Your task to perform on an android device: Add "usb-a" to the cart on bestbuy.com Image 0: 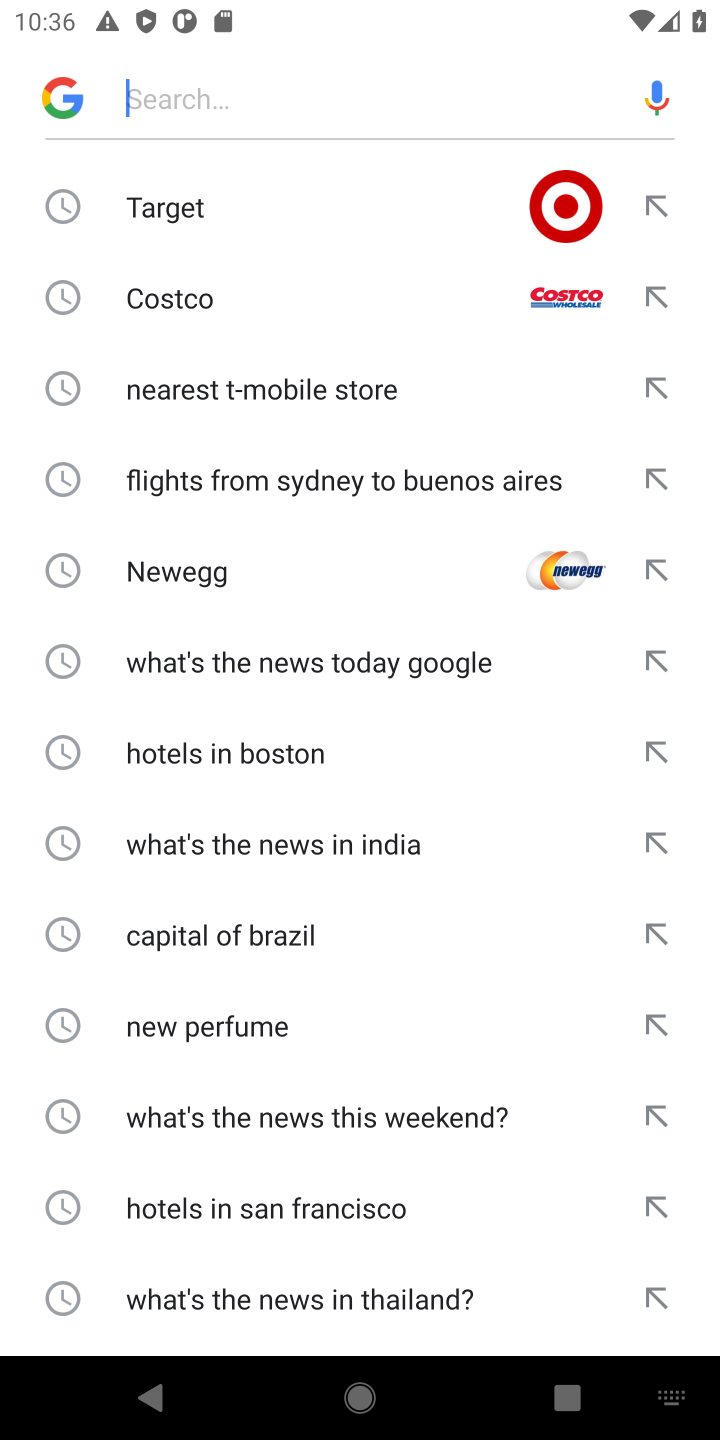
Step 0: press home button
Your task to perform on an android device: Add "usb-a" to the cart on bestbuy.com Image 1: 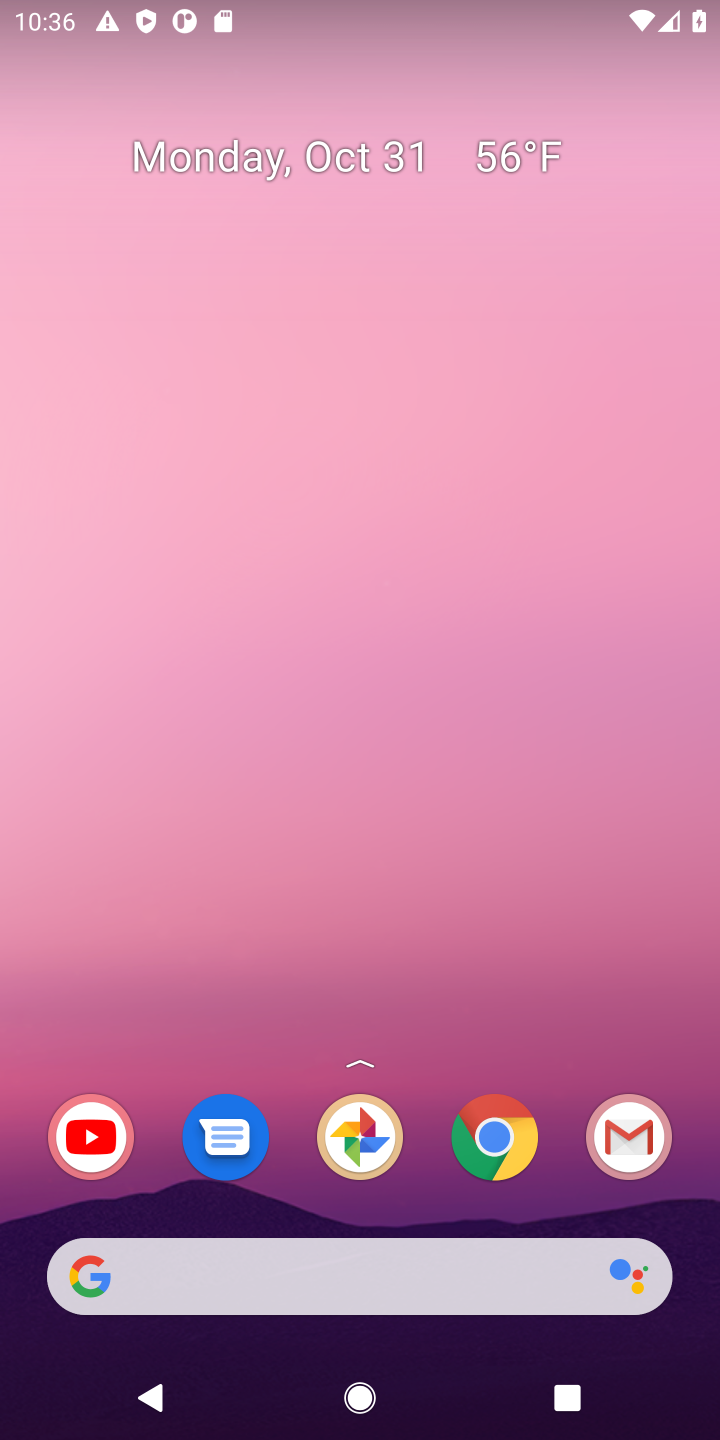
Step 1: click (495, 1137)
Your task to perform on an android device: Add "usb-a" to the cart on bestbuy.com Image 2: 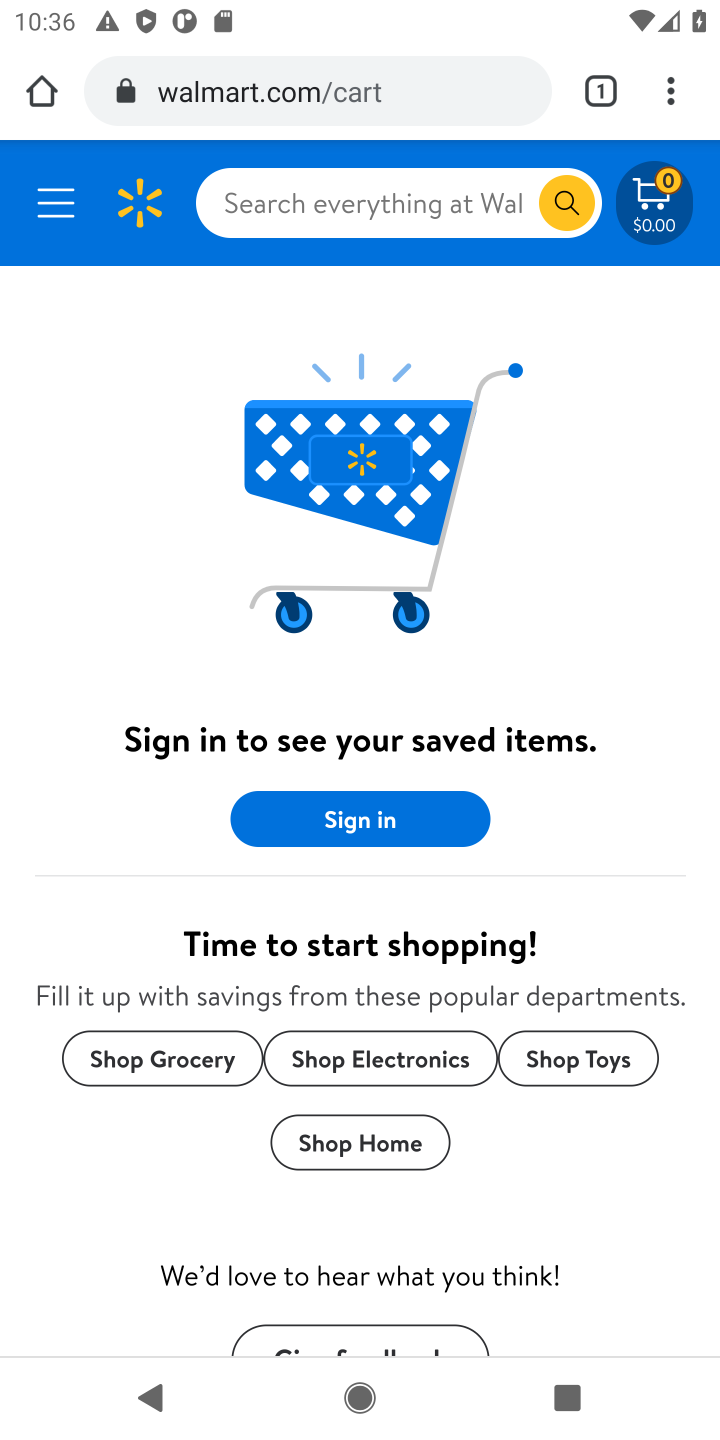
Step 2: click (400, 89)
Your task to perform on an android device: Add "usb-a" to the cart on bestbuy.com Image 3: 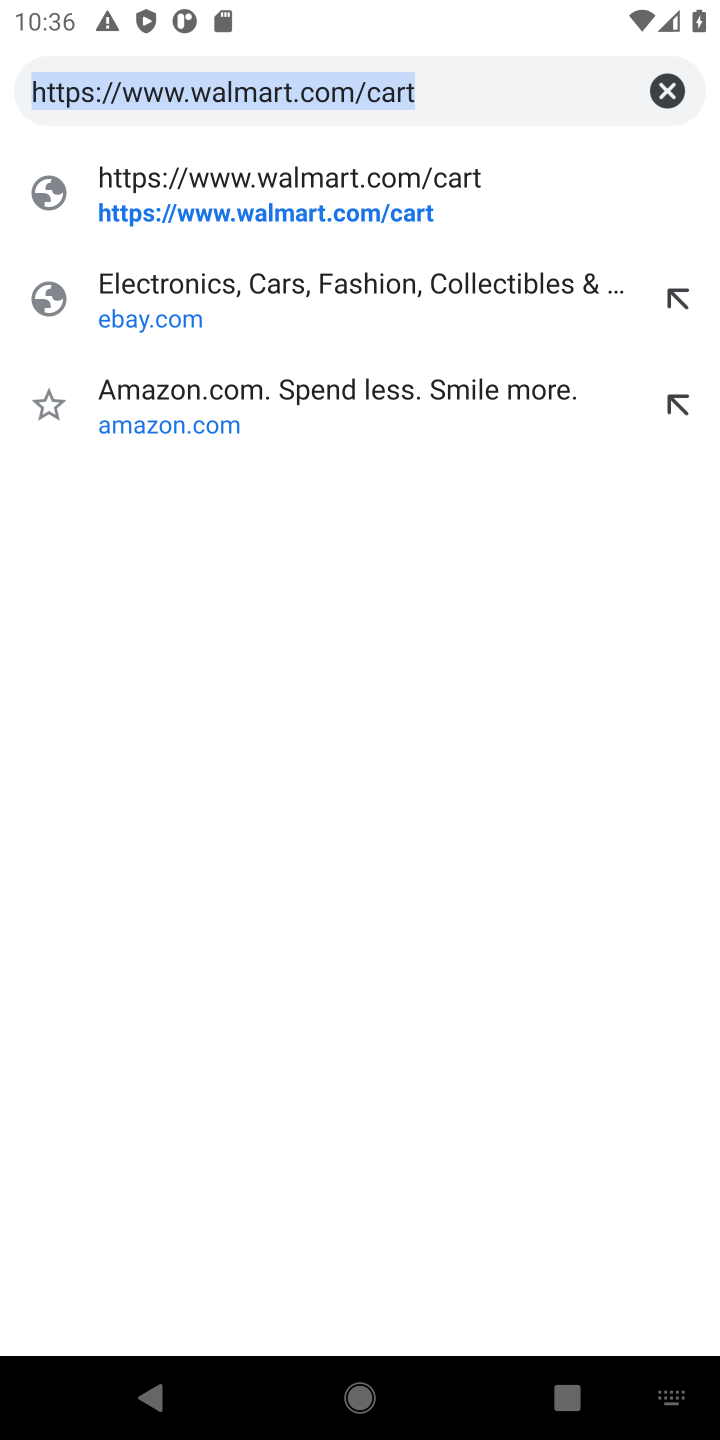
Step 3: click (674, 82)
Your task to perform on an android device: Add "usb-a" to the cart on bestbuy.com Image 4: 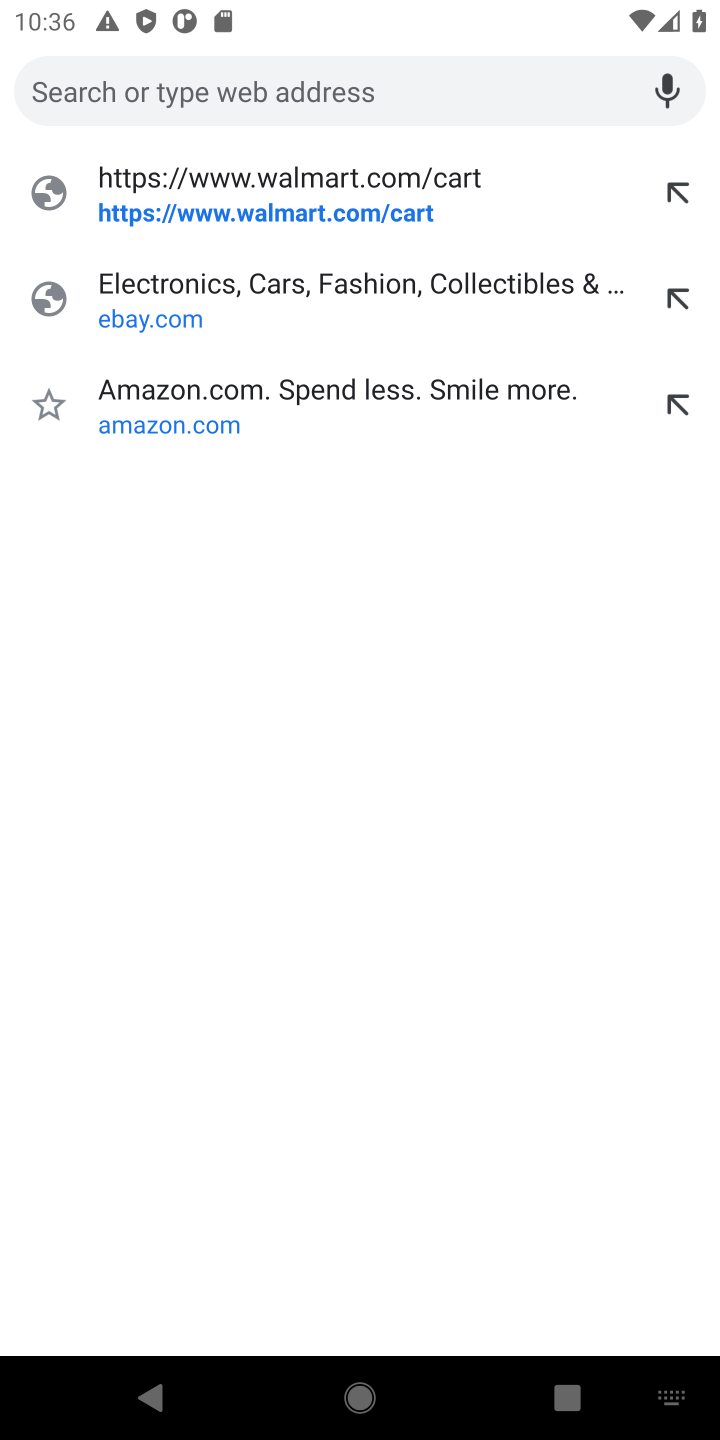
Step 4: type "bestbuy.com"
Your task to perform on an android device: Add "usb-a" to the cart on bestbuy.com Image 5: 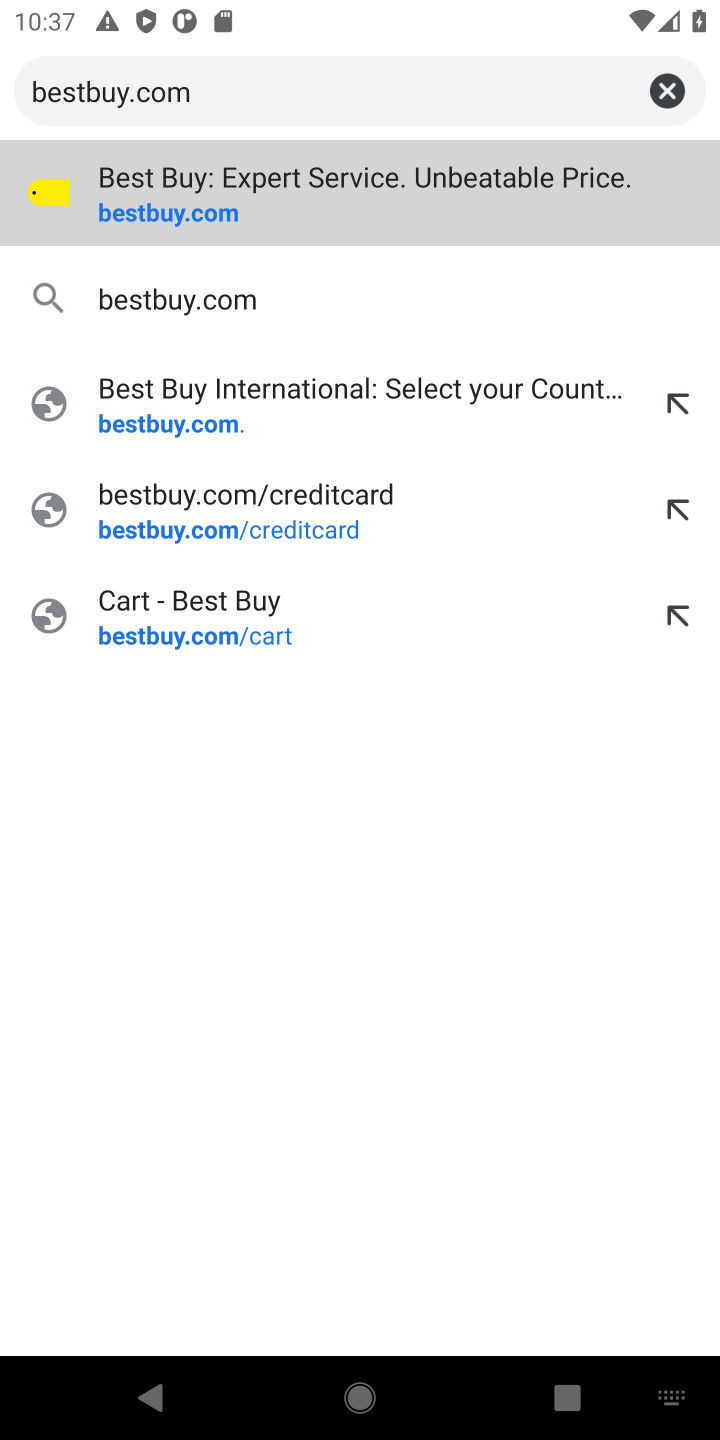
Step 5: click (185, 301)
Your task to perform on an android device: Add "usb-a" to the cart on bestbuy.com Image 6: 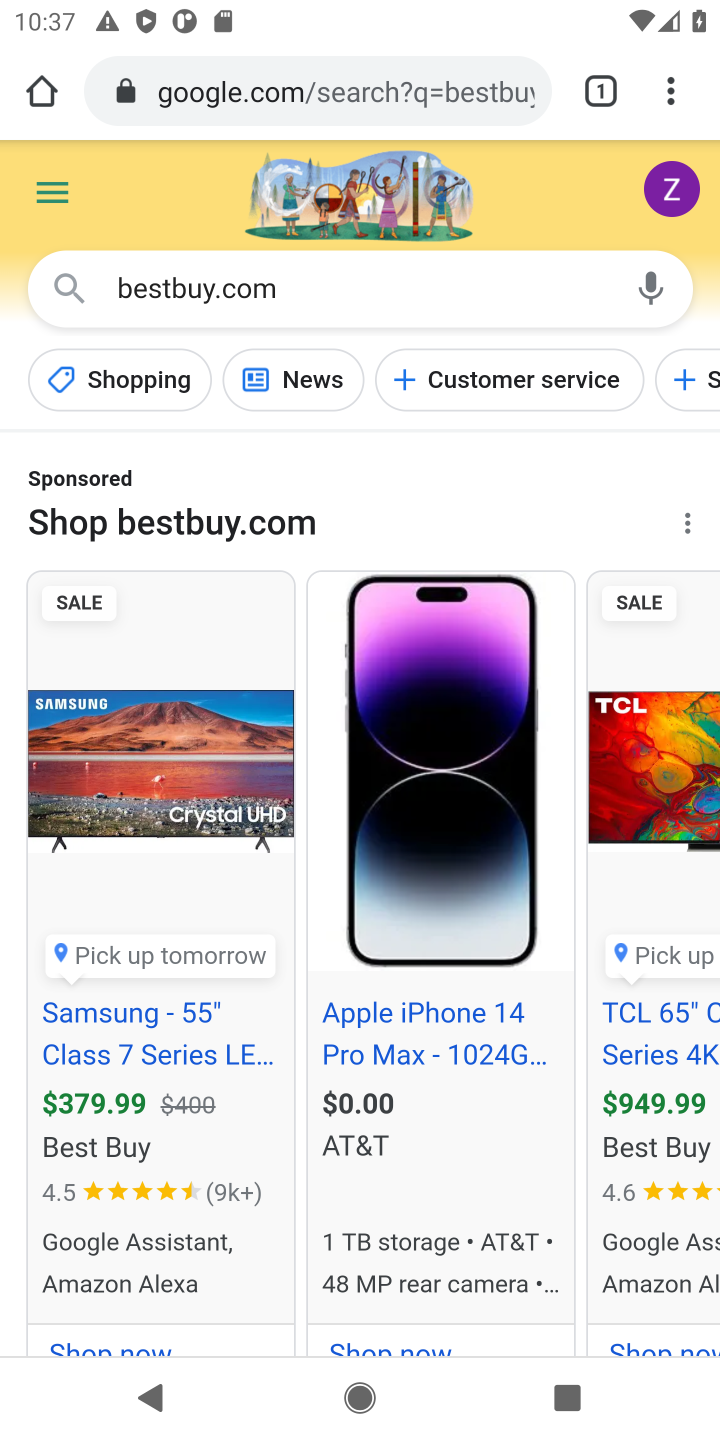
Step 6: drag from (456, 1092) to (547, 384)
Your task to perform on an android device: Add "usb-a" to the cart on bestbuy.com Image 7: 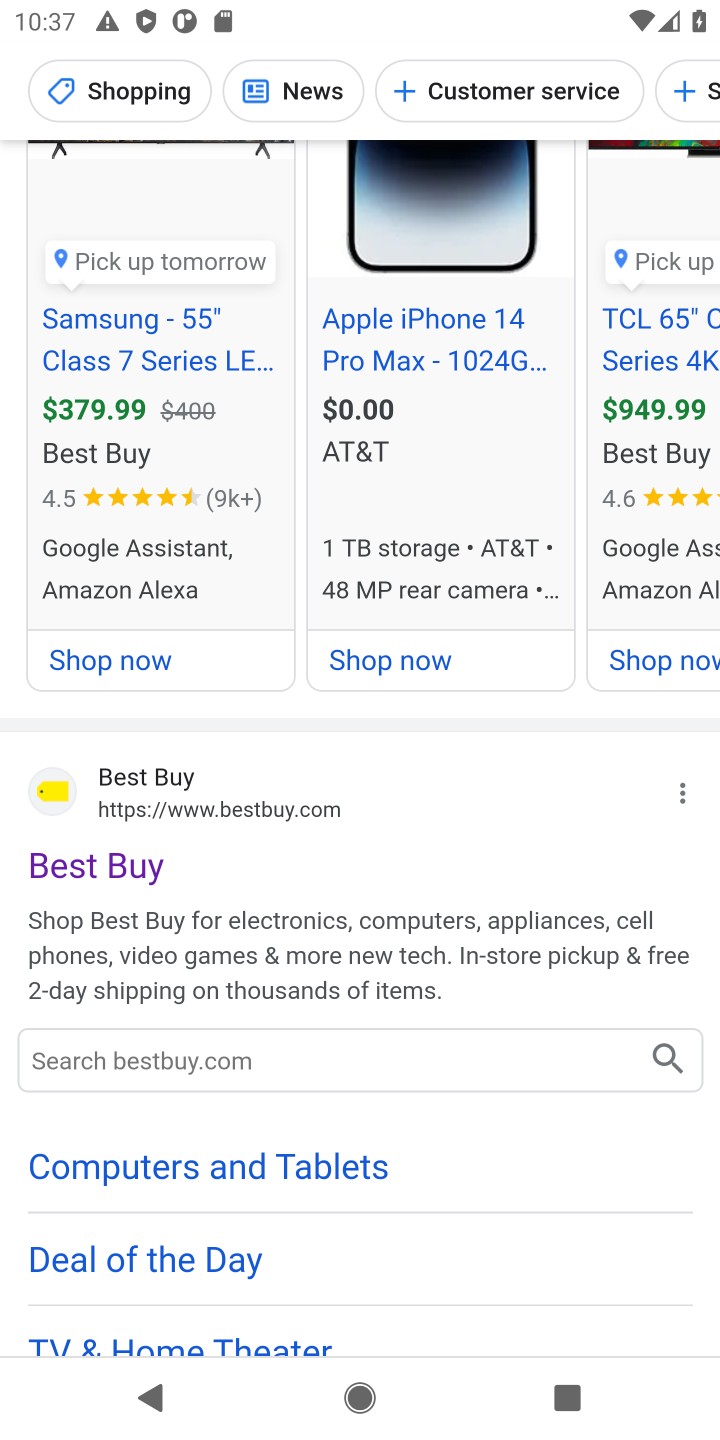
Step 7: click (139, 851)
Your task to perform on an android device: Add "usb-a" to the cart on bestbuy.com Image 8: 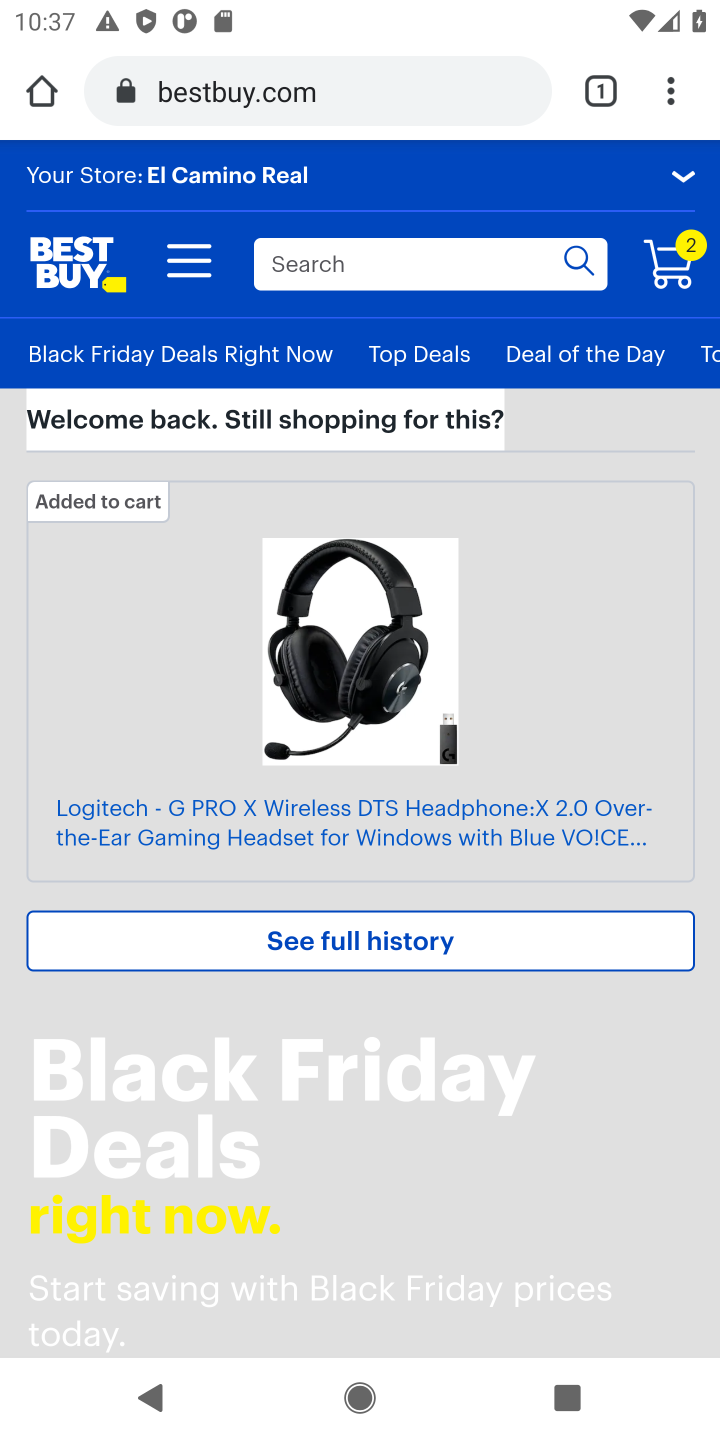
Step 8: click (427, 259)
Your task to perform on an android device: Add "usb-a" to the cart on bestbuy.com Image 9: 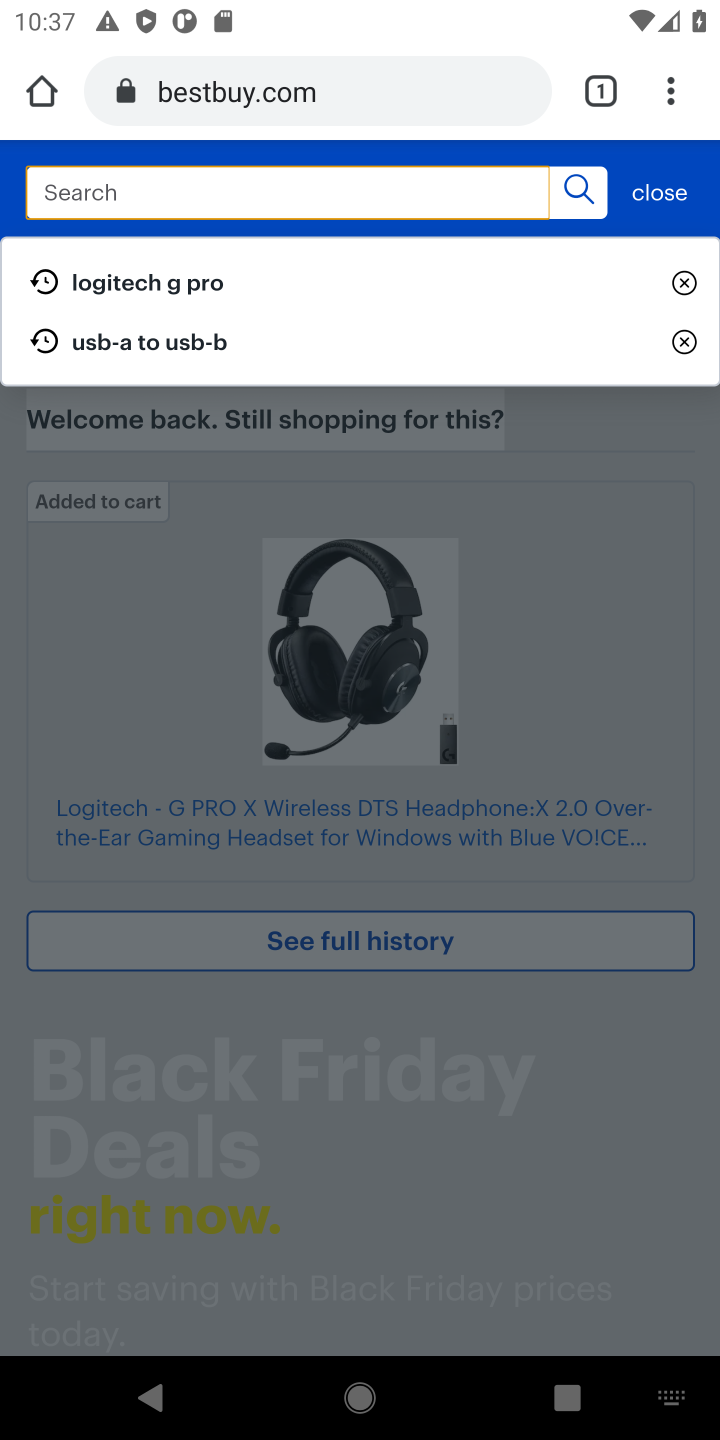
Step 9: type "usb-a"
Your task to perform on an android device: Add "usb-a" to the cart on bestbuy.com Image 10: 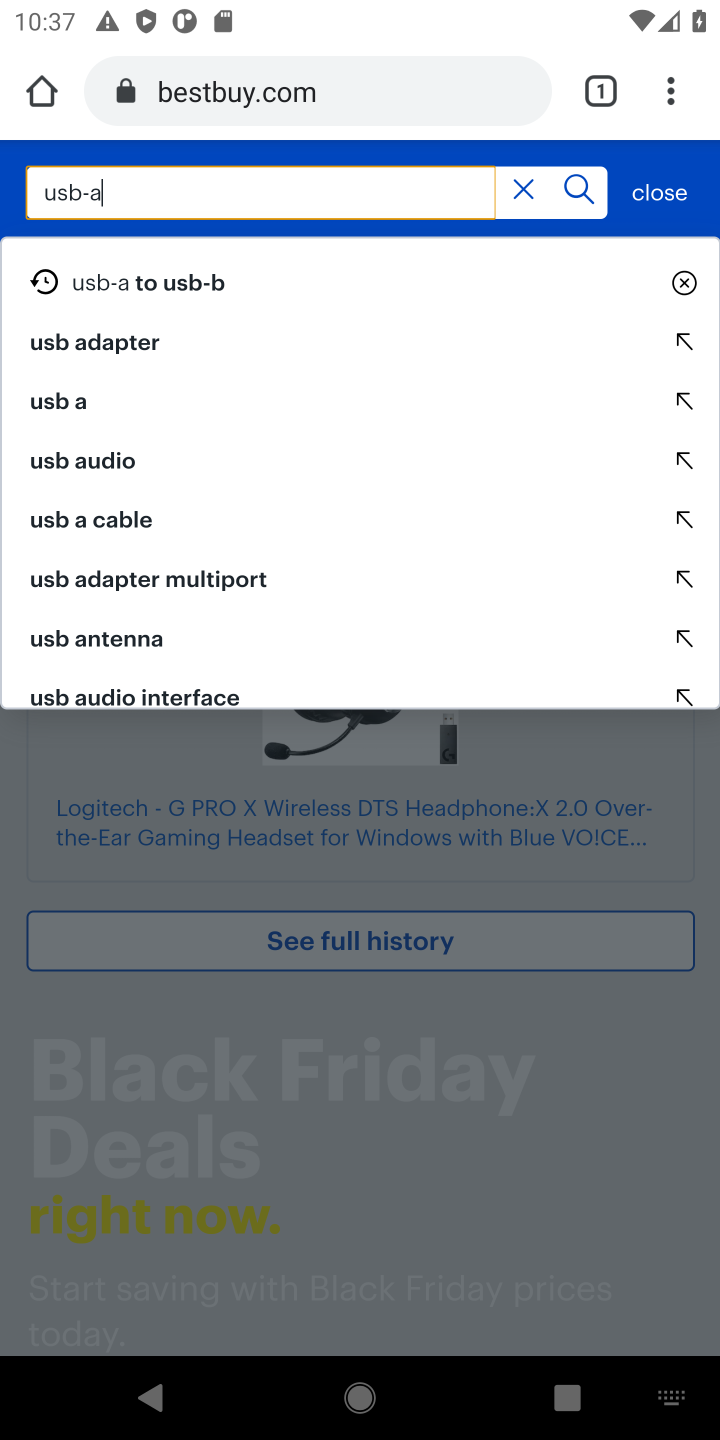
Step 10: click (32, 398)
Your task to perform on an android device: Add "usb-a" to the cart on bestbuy.com Image 11: 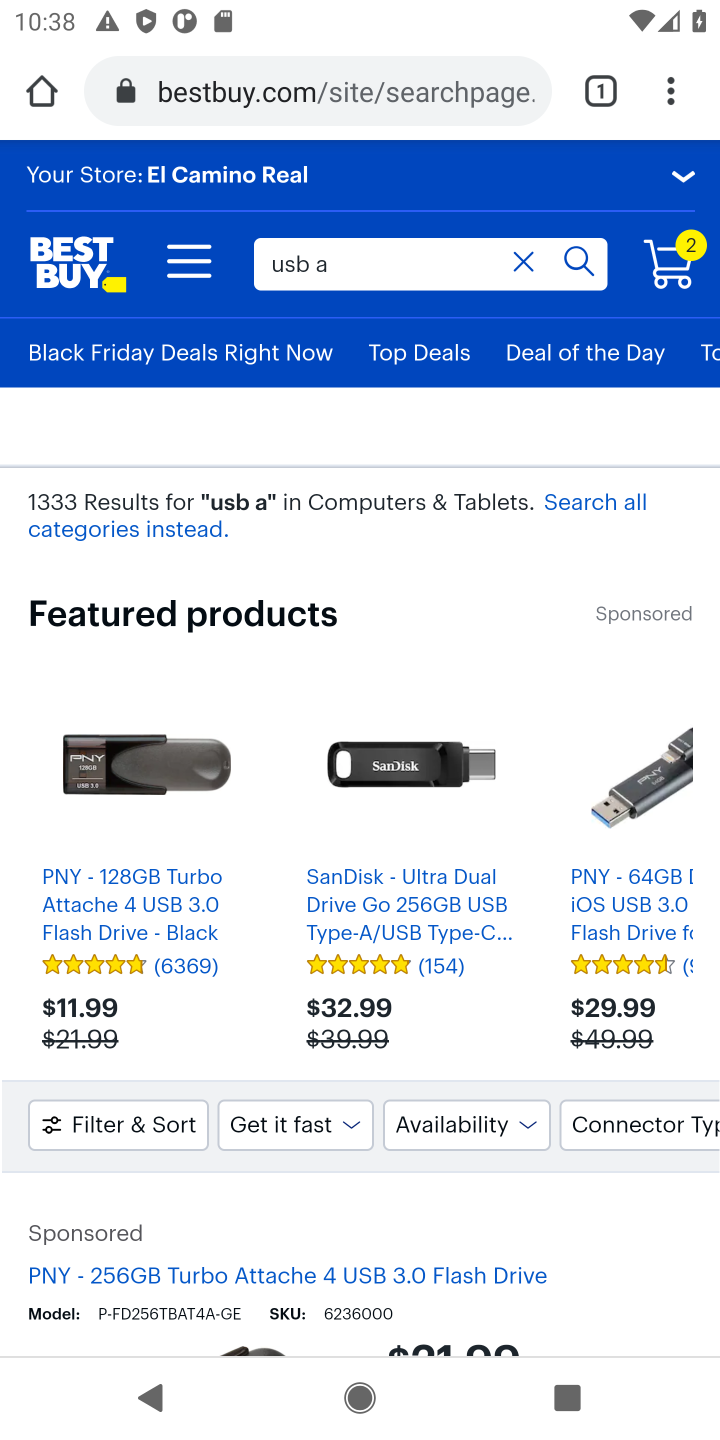
Step 11: drag from (381, 1213) to (431, 422)
Your task to perform on an android device: Add "usb-a" to the cart on bestbuy.com Image 12: 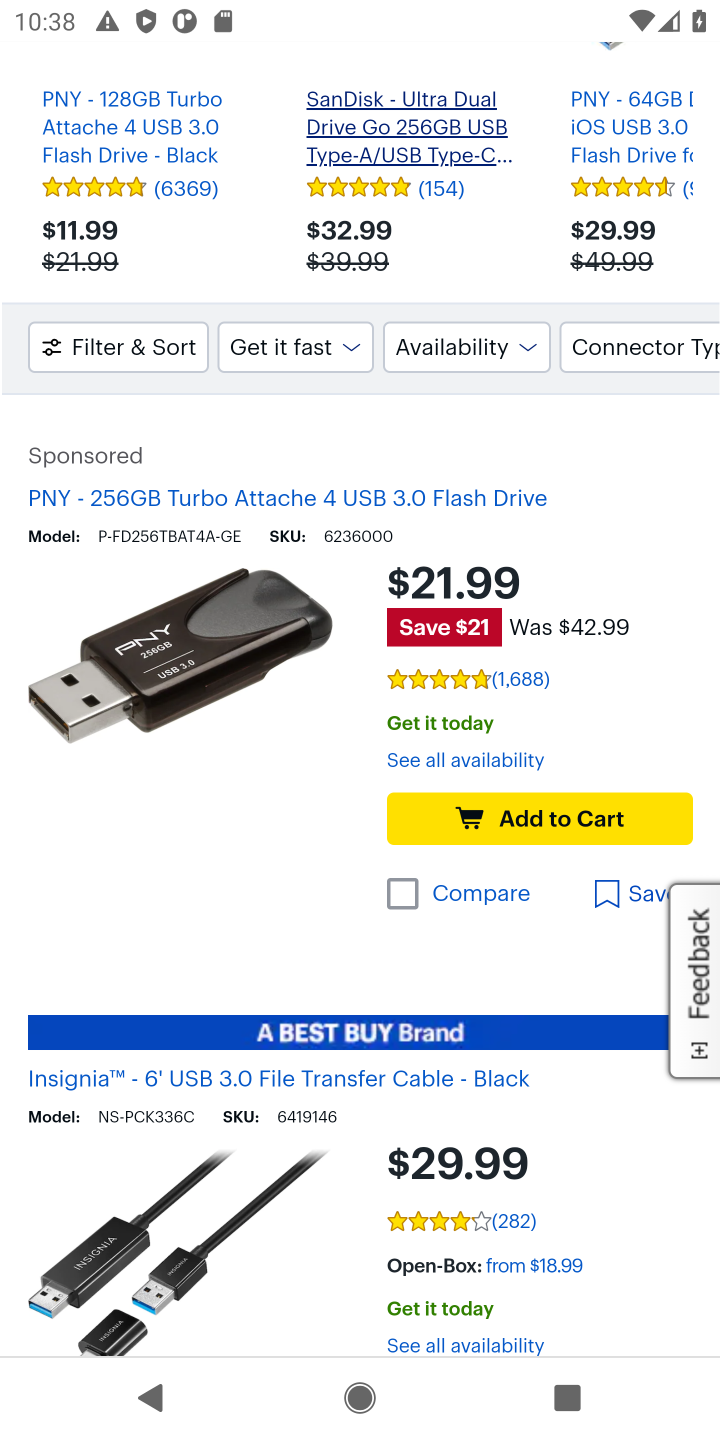
Step 12: drag from (588, 1142) to (523, 496)
Your task to perform on an android device: Add "usb-a" to the cart on bestbuy.com Image 13: 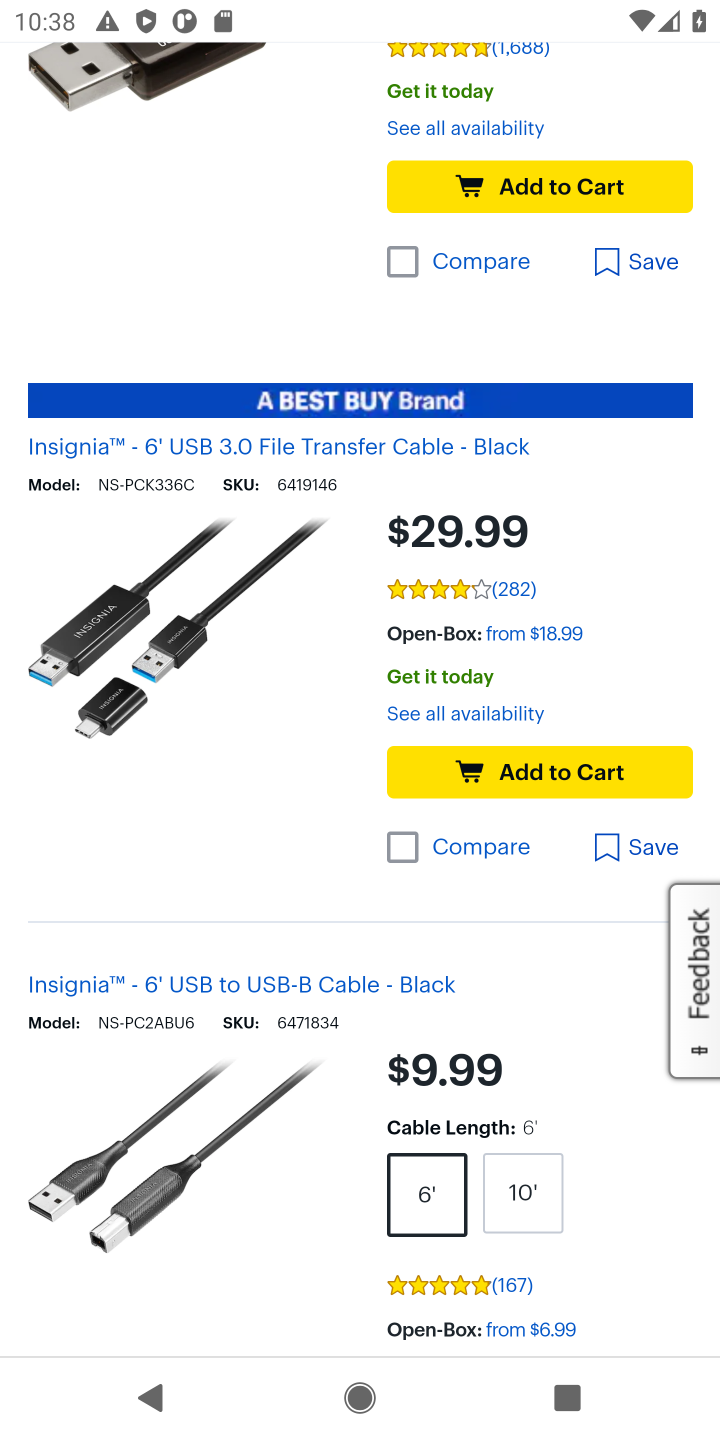
Step 13: drag from (562, 457) to (538, 1100)
Your task to perform on an android device: Add "usb-a" to the cart on bestbuy.com Image 14: 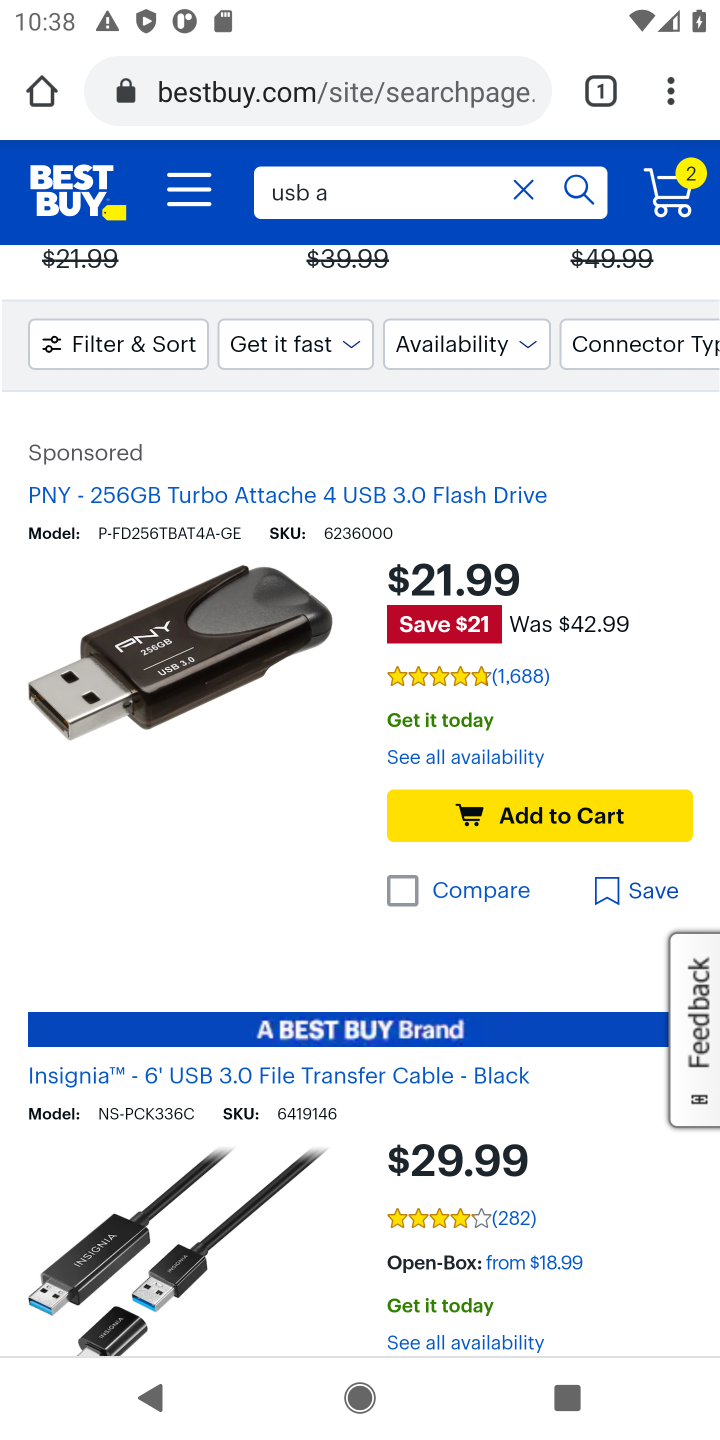
Step 14: drag from (409, 375) to (494, 1015)
Your task to perform on an android device: Add "usb-a" to the cart on bestbuy.com Image 15: 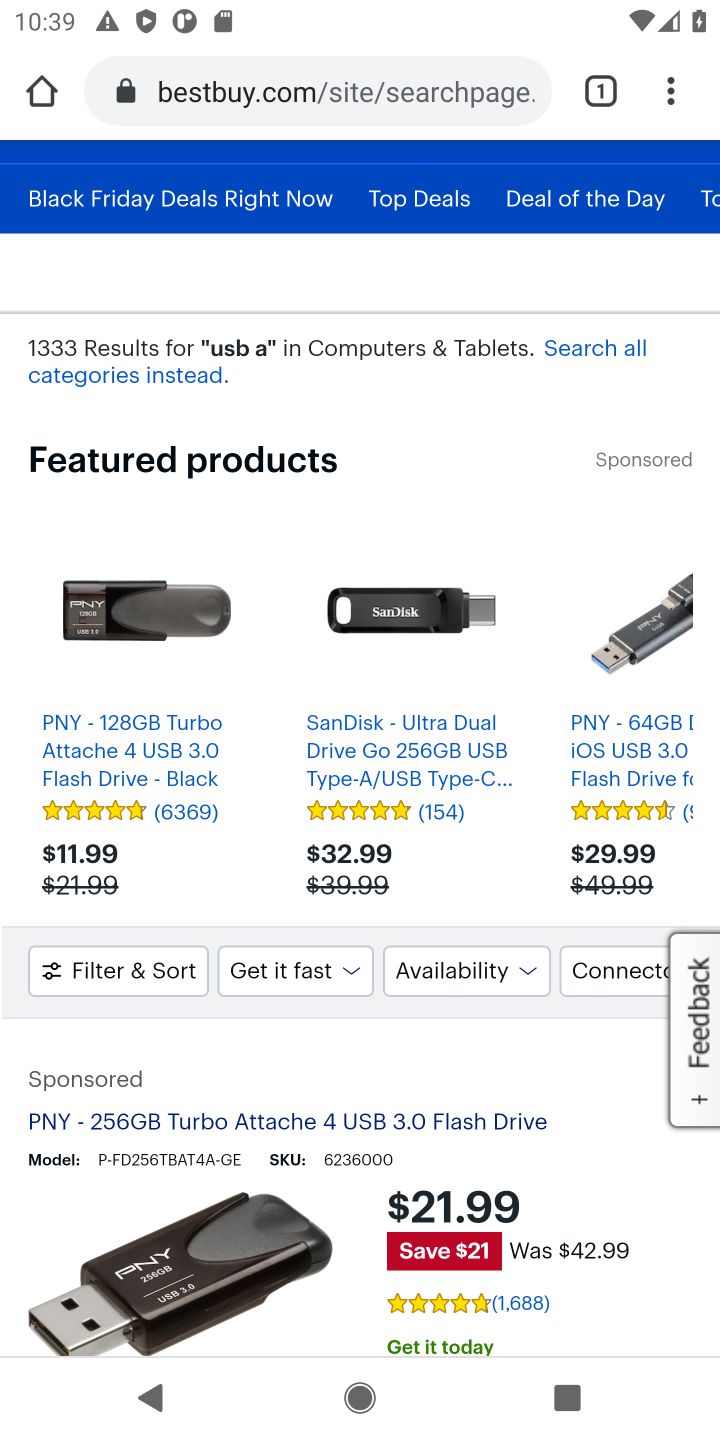
Step 15: drag from (584, 1190) to (583, 938)
Your task to perform on an android device: Add "usb-a" to the cart on bestbuy.com Image 16: 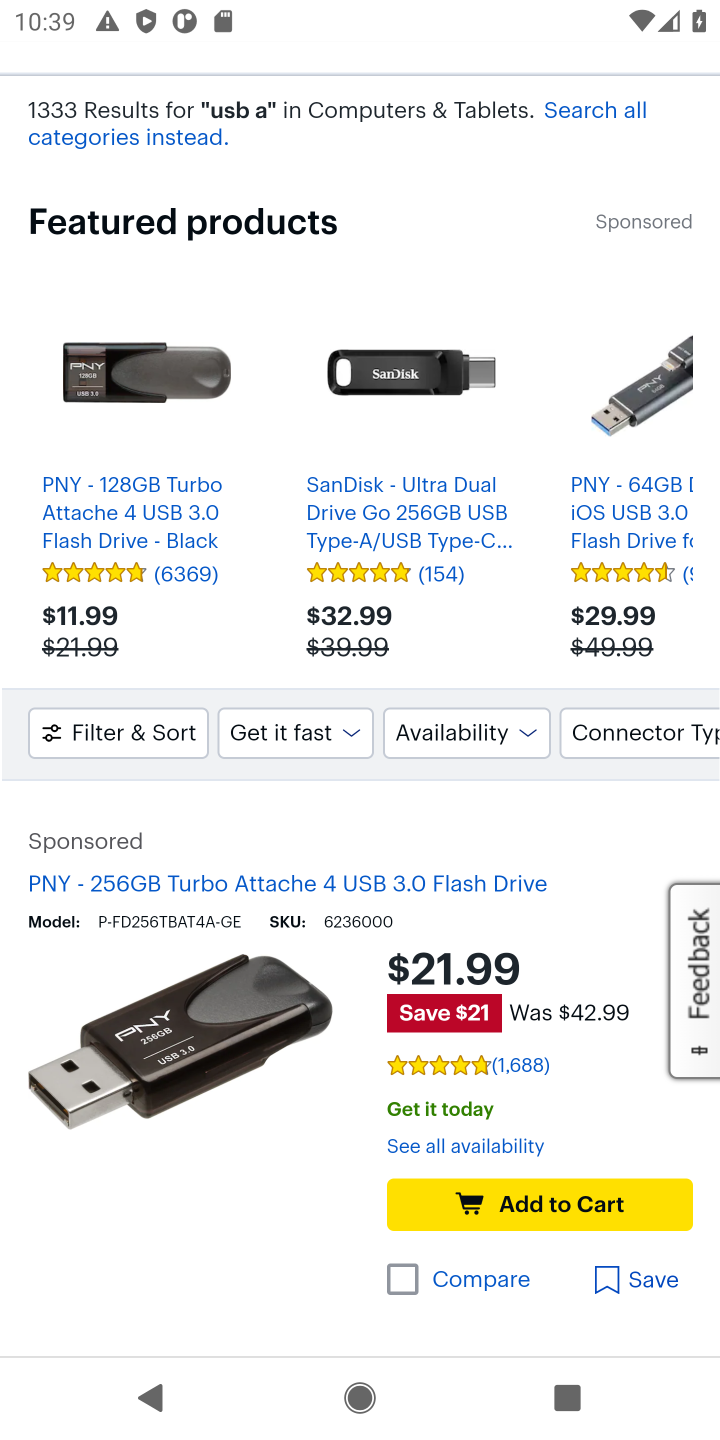
Step 16: click (499, 1200)
Your task to perform on an android device: Add "usb-a" to the cart on bestbuy.com Image 17: 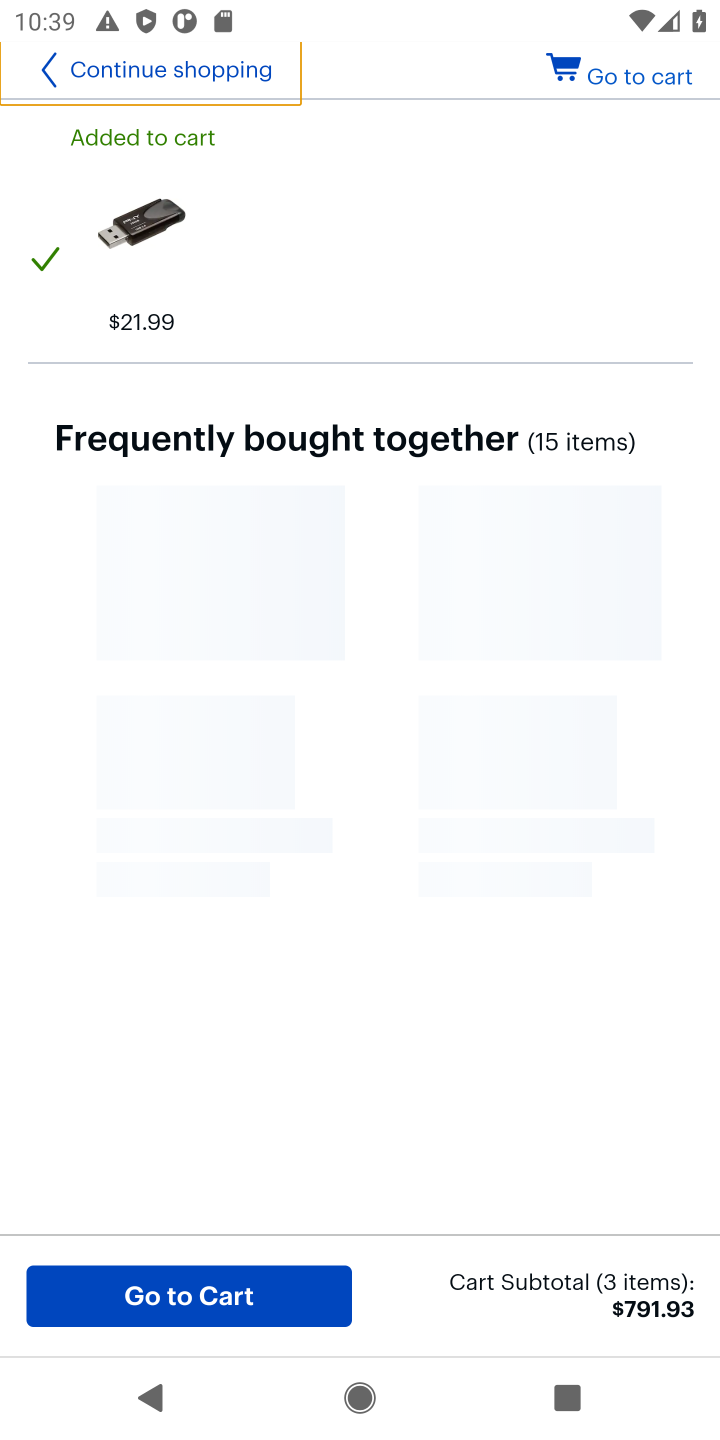
Step 17: click (177, 1299)
Your task to perform on an android device: Add "usb-a" to the cart on bestbuy.com Image 18: 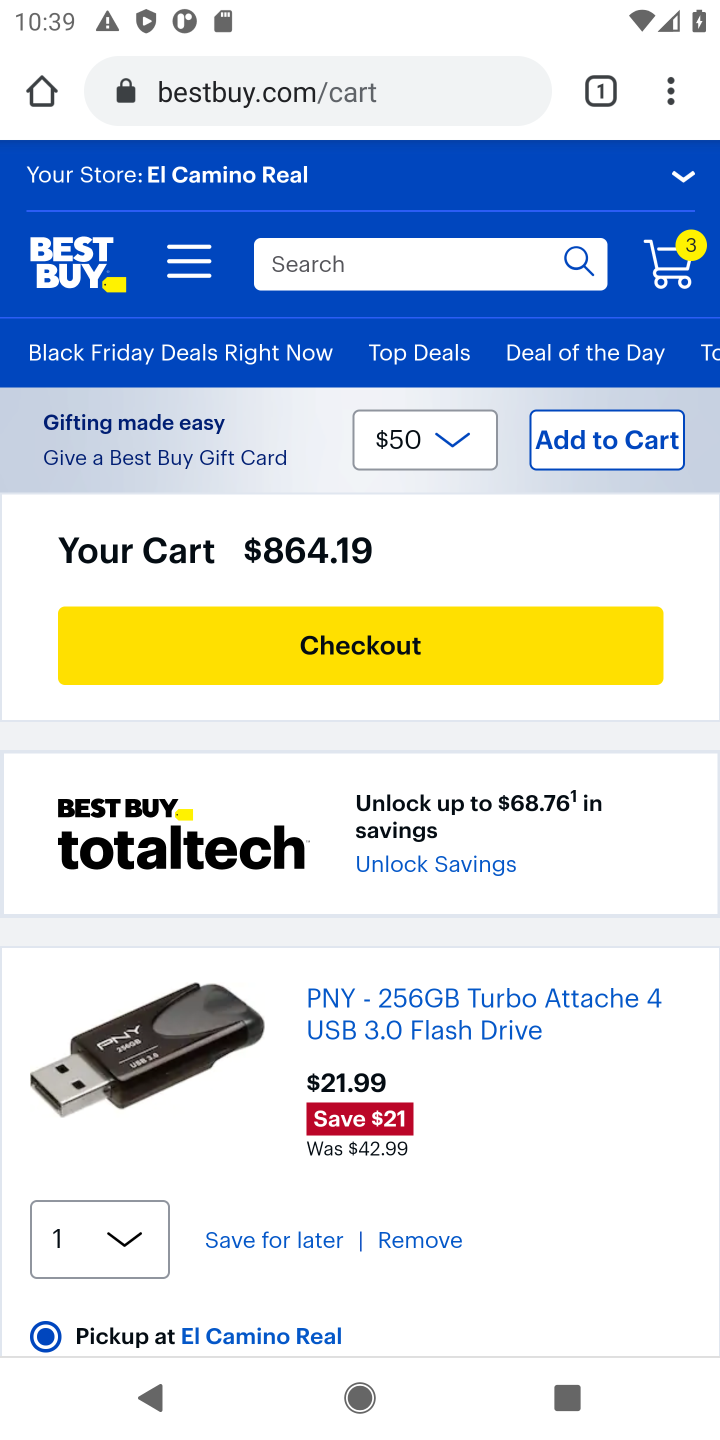
Step 18: task complete